Your task to perform on an android device: Go to Yahoo.com Image 0: 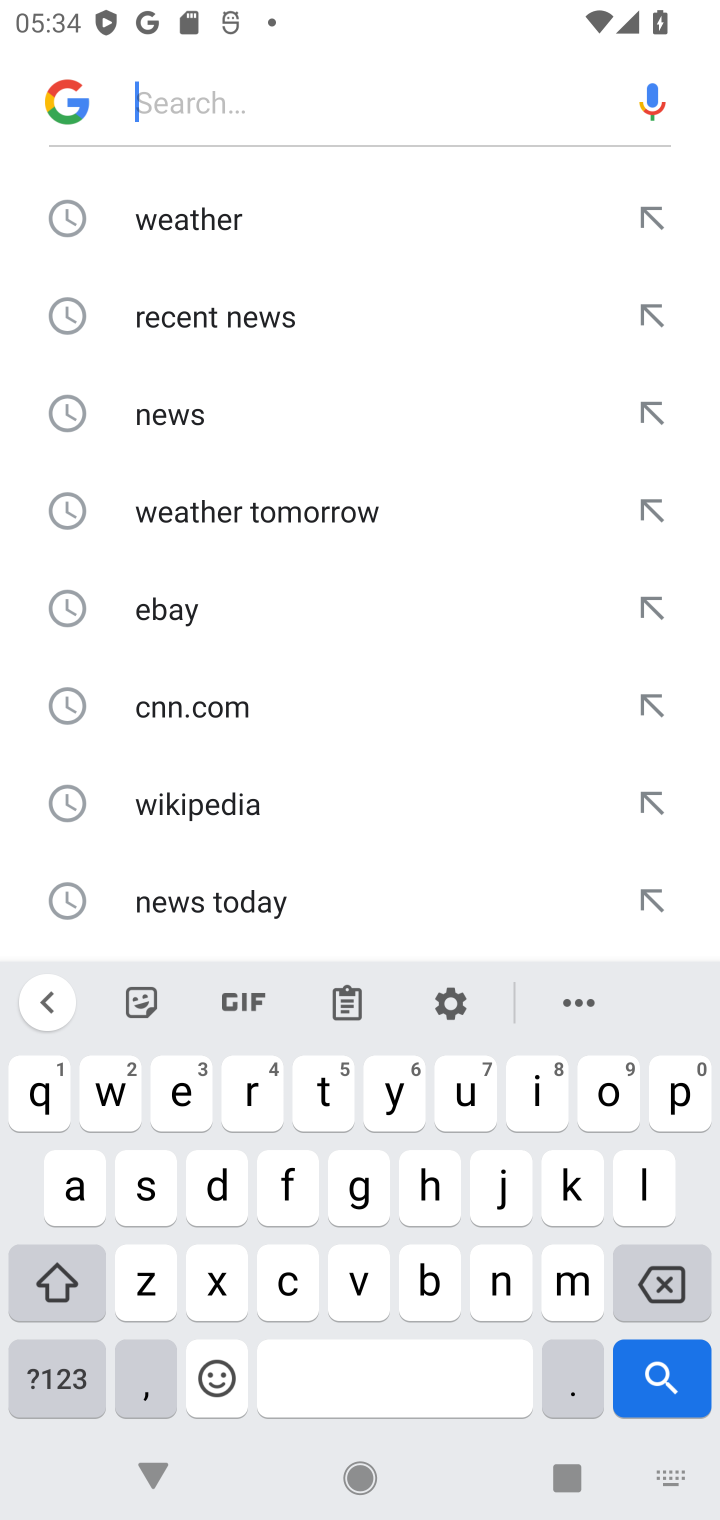
Step 0: press home button
Your task to perform on an android device: Go to Yahoo.com Image 1: 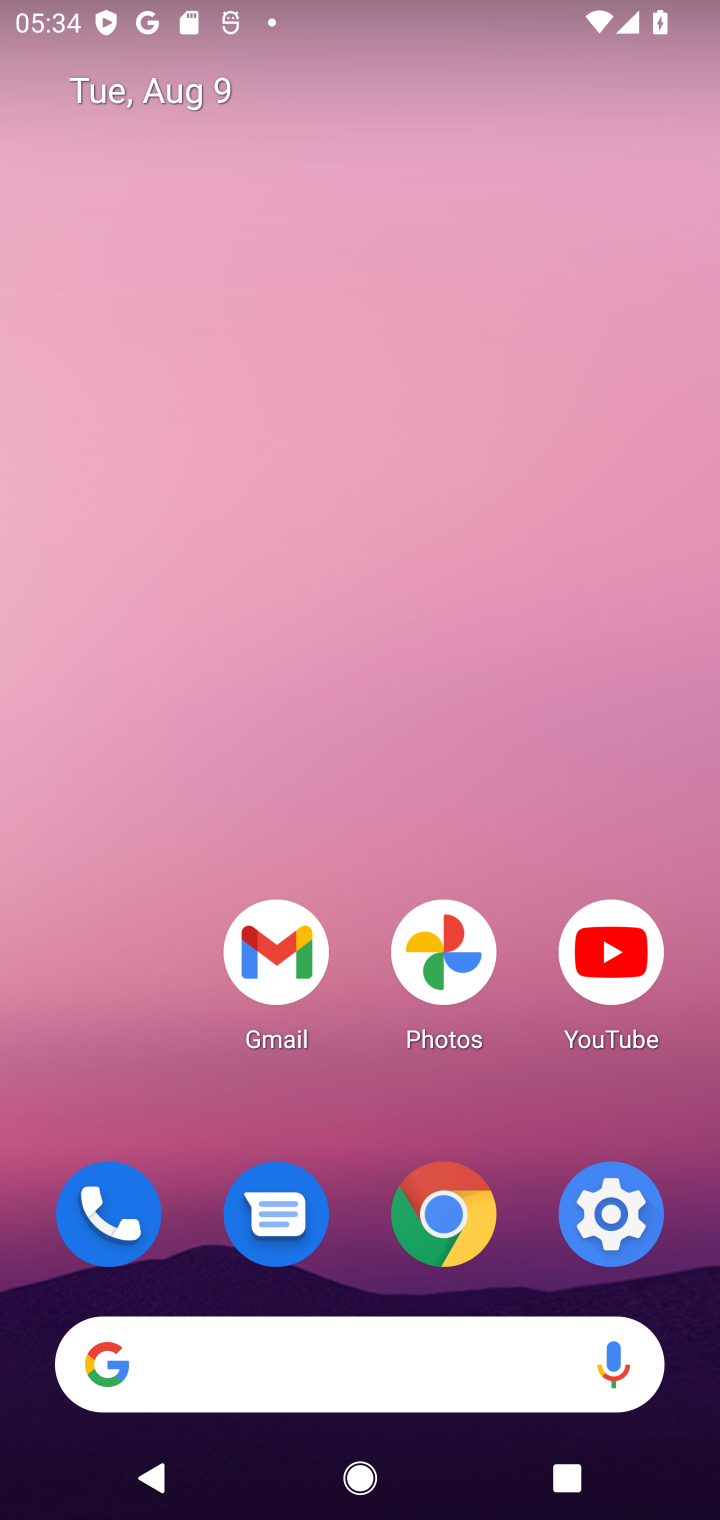
Step 1: click (476, 1236)
Your task to perform on an android device: Go to Yahoo.com Image 2: 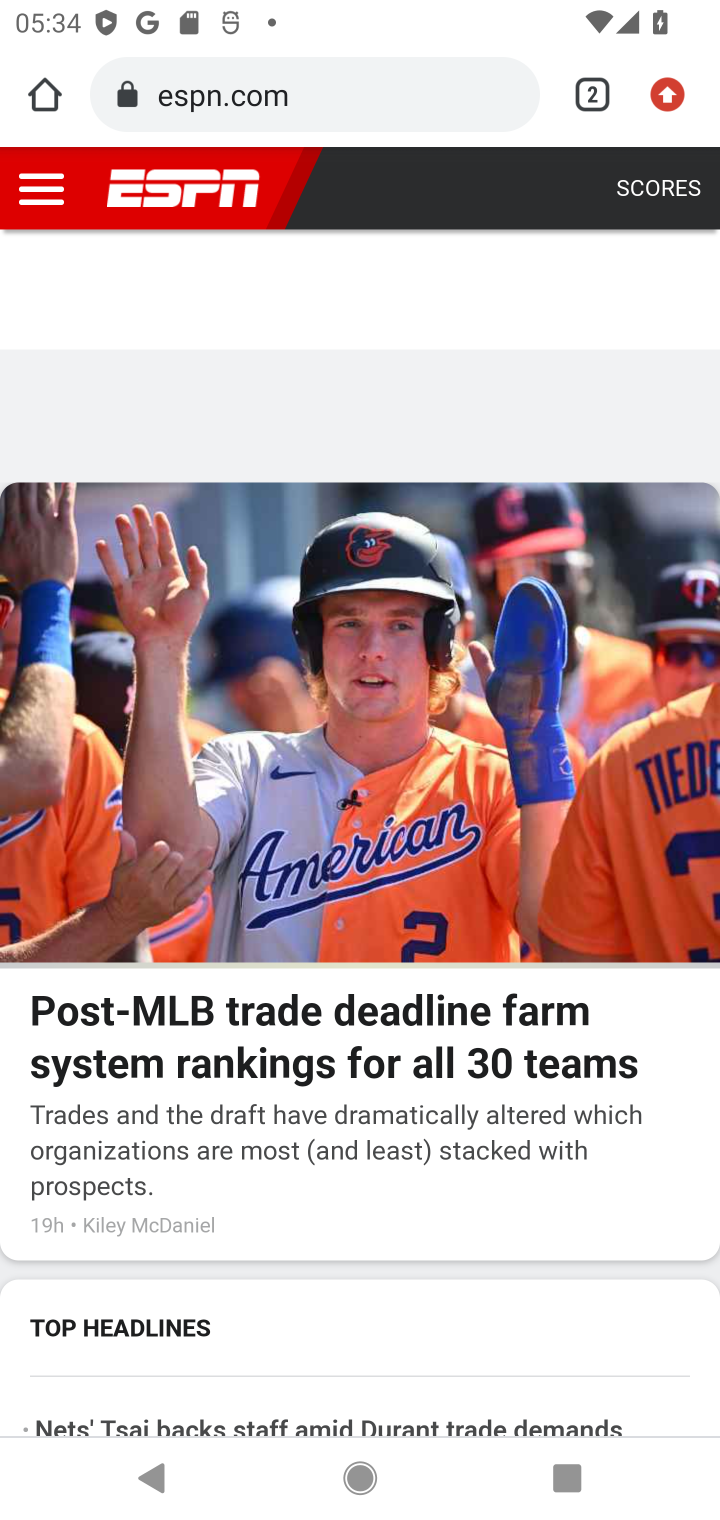
Step 2: click (584, 102)
Your task to perform on an android device: Go to Yahoo.com Image 3: 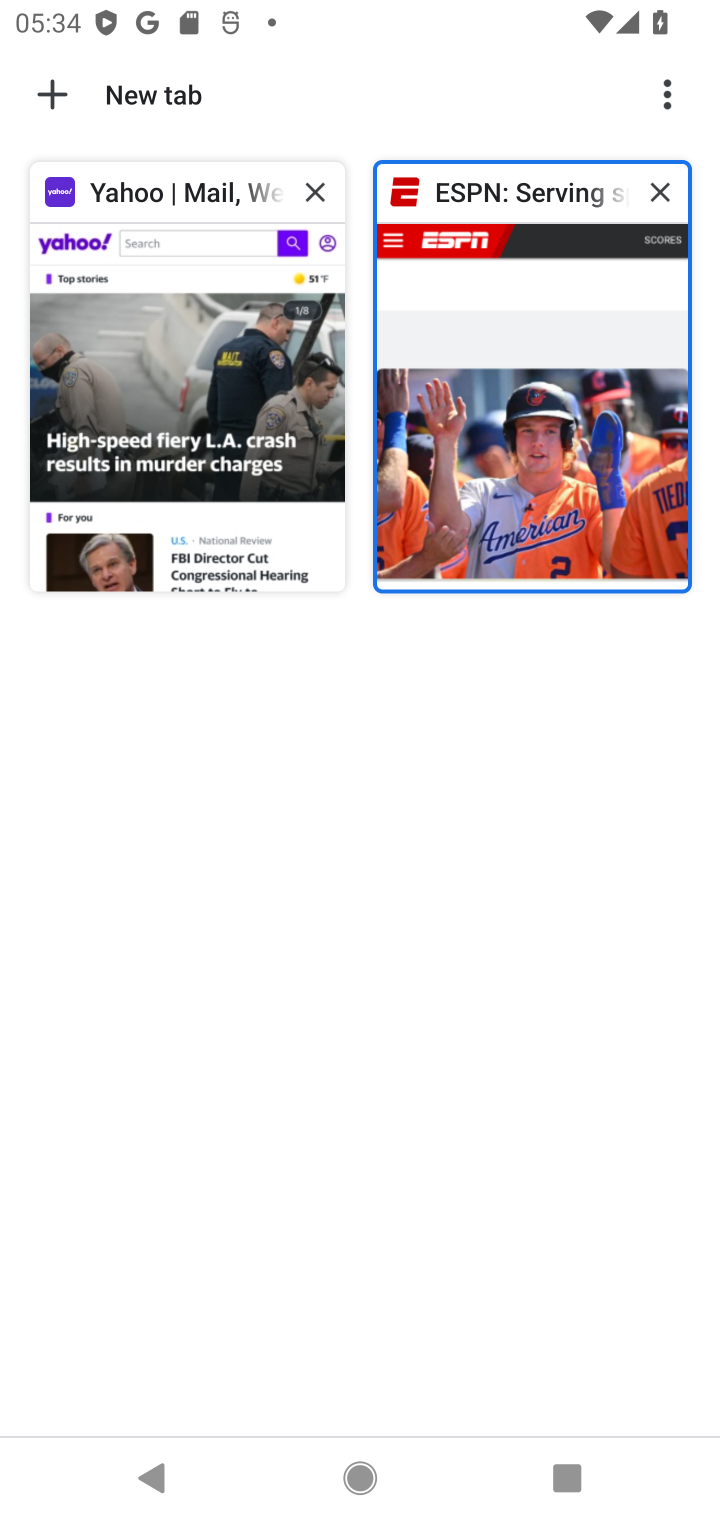
Step 3: click (101, 246)
Your task to perform on an android device: Go to Yahoo.com Image 4: 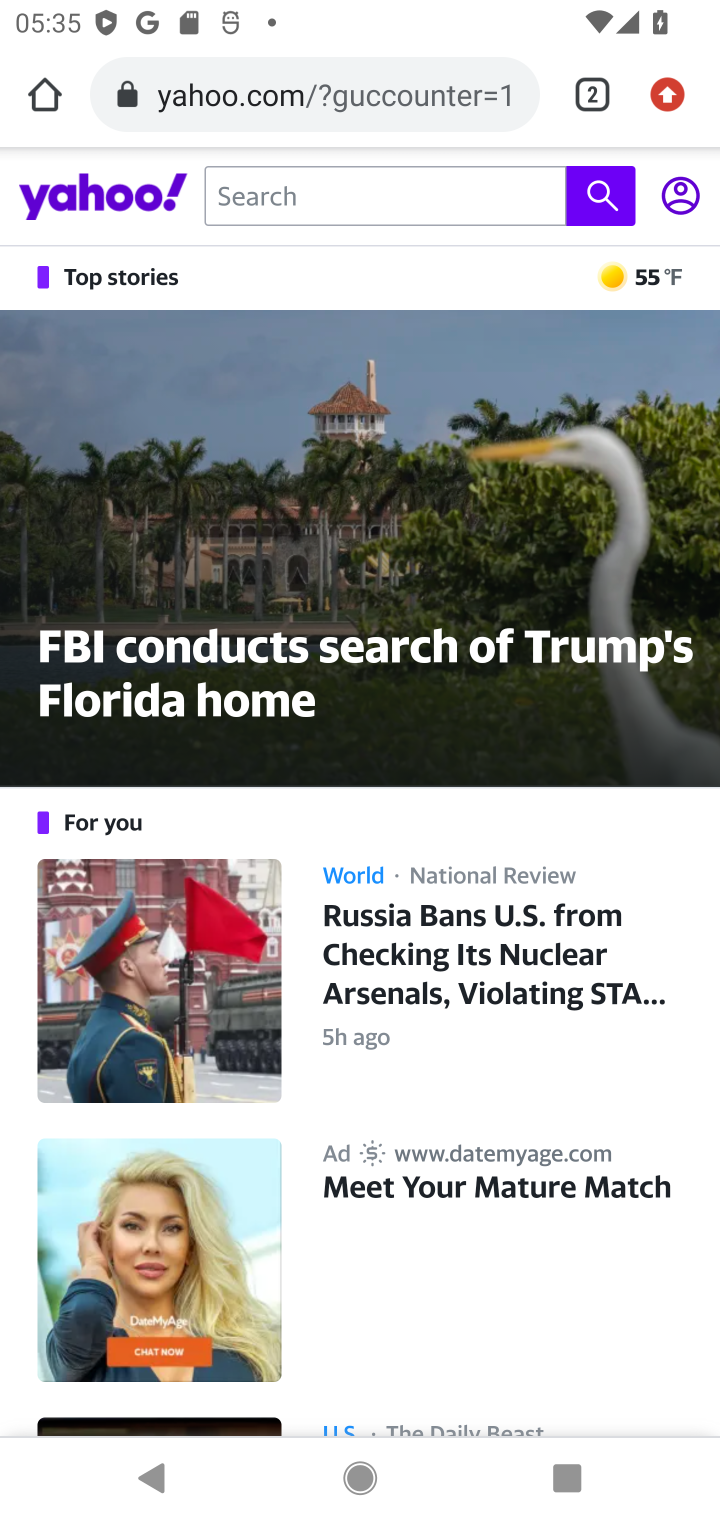
Step 4: task complete